Your task to perform on an android device: find which apps use the phone's location Image 0: 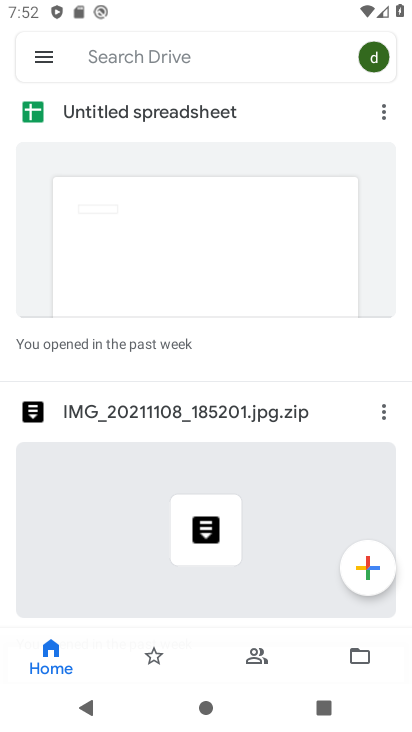
Step 0: press home button
Your task to perform on an android device: find which apps use the phone's location Image 1: 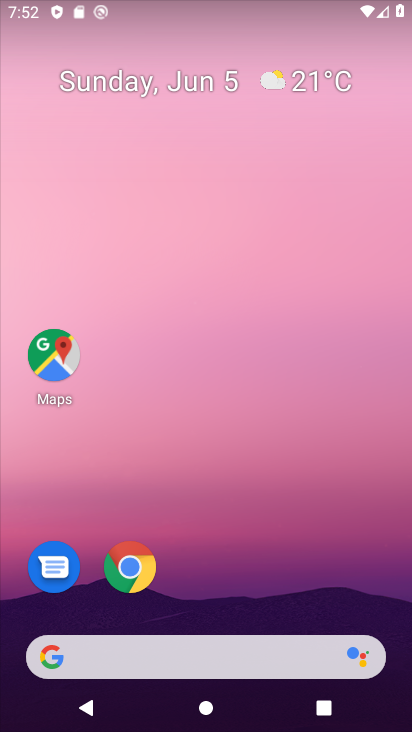
Step 1: drag from (145, 654) to (122, 340)
Your task to perform on an android device: find which apps use the phone's location Image 2: 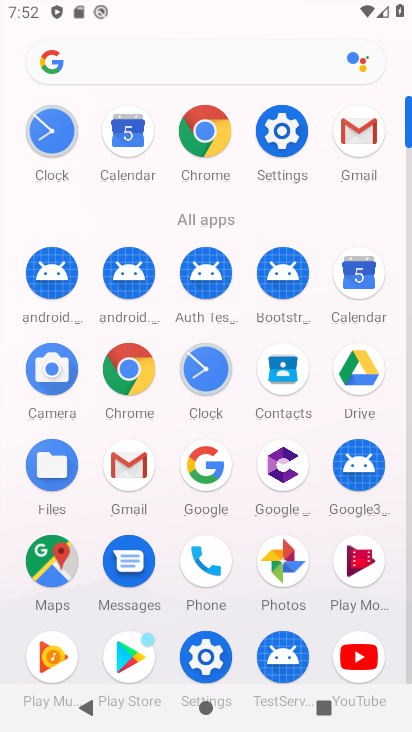
Step 2: click (295, 134)
Your task to perform on an android device: find which apps use the phone's location Image 3: 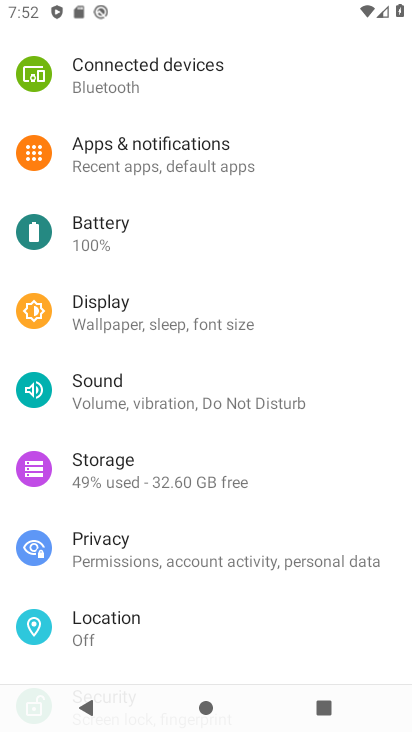
Step 3: click (91, 635)
Your task to perform on an android device: find which apps use the phone's location Image 4: 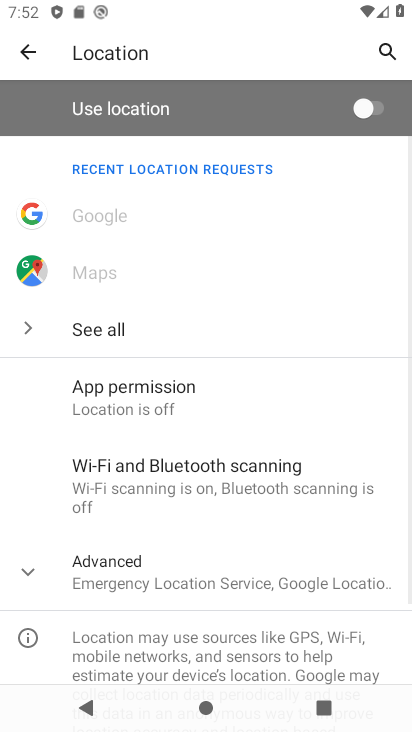
Step 4: click (104, 392)
Your task to perform on an android device: find which apps use the phone's location Image 5: 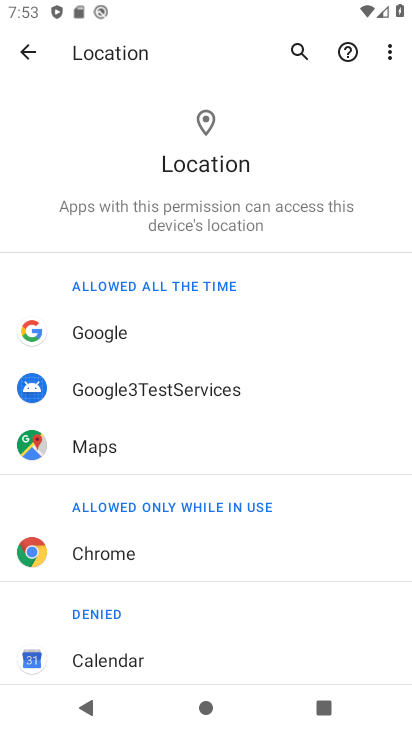
Step 5: task complete